Your task to perform on an android device: Is it going to rain this weekend? Image 0: 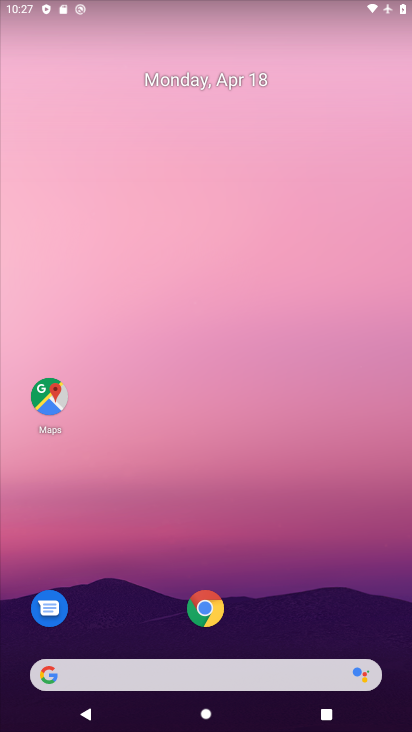
Step 0: click (194, 611)
Your task to perform on an android device: Is it going to rain this weekend? Image 1: 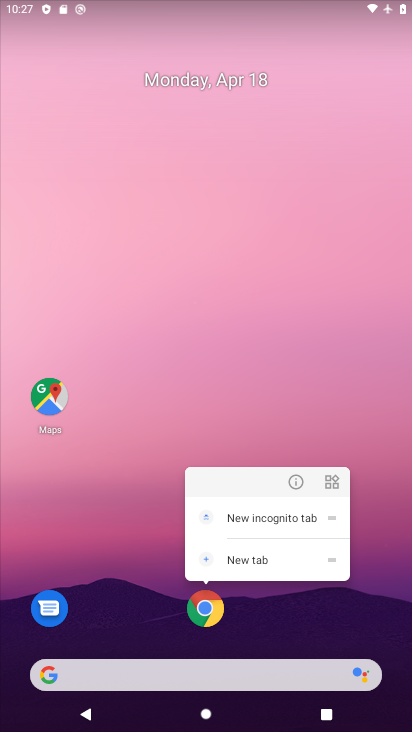
Step 1: click (215, 610)
Your task to perform on an android device: Is it going to rain this weekend? Image 2: 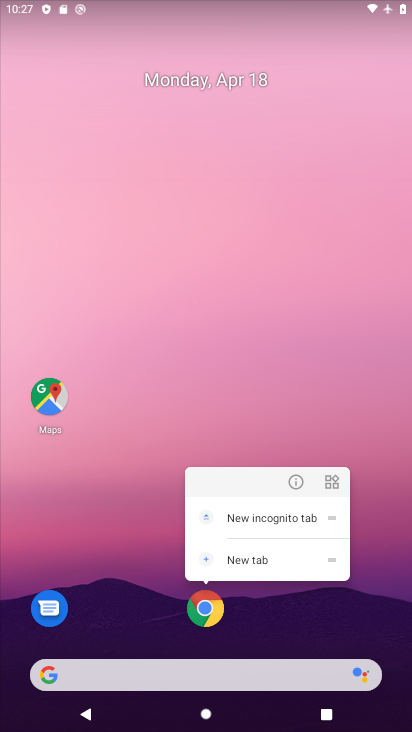
Step 2: click (209, 613)
Your task to perform on an android device: Is it going to rain this weekend? Image 3: 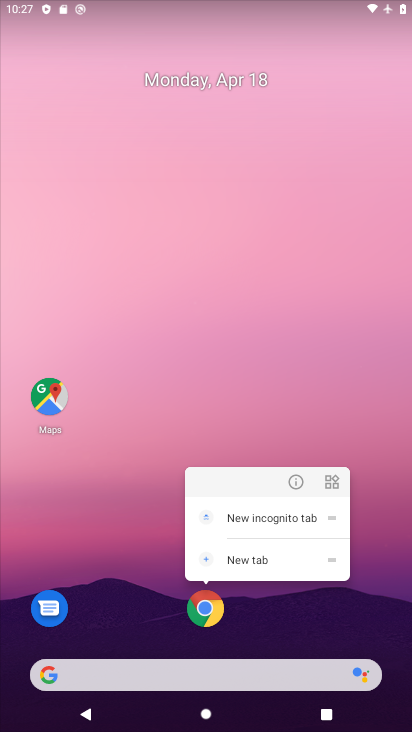
Step 3: click (201, 614)
Your task to perform on an android device: Is it going to rain this weekend? Image 4: 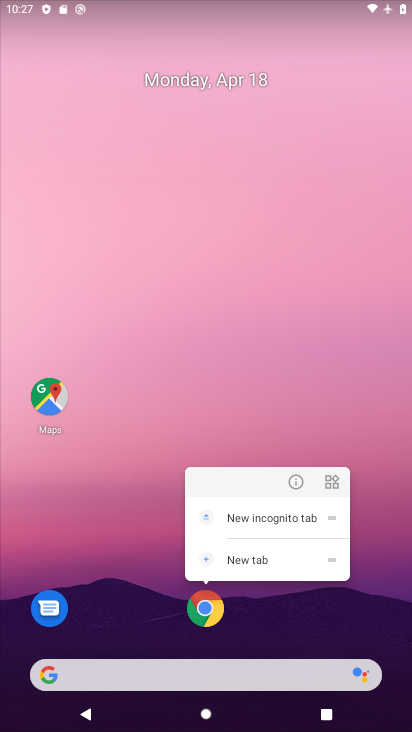
Step 4: click (210, 620)
Your task to perform on an android device: Is it going to rain this weekend? Image 5: 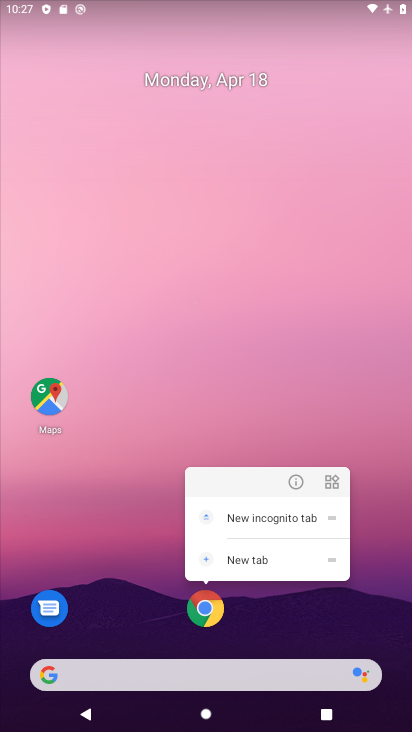
Step 5: click (205, 619)
Your task to perform on an android device: Is it going to rain this weekend? Image 6: 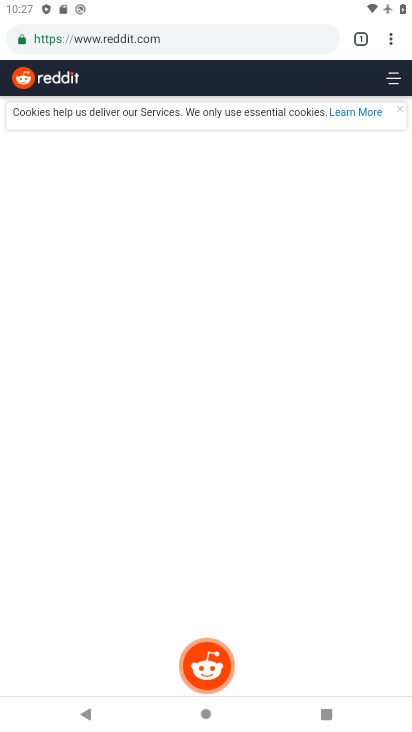
Step 6: click (187, 43)
Your task to perform on an android device: Is it going to rain this weekend? Image 7: 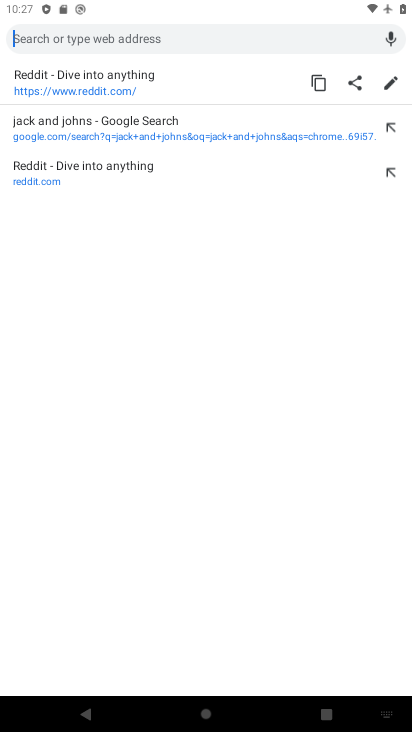
Step 7: type "is it going to rain this weekend"
Your task to perform on an android device: Is it going to rain this weekend? Image 8: 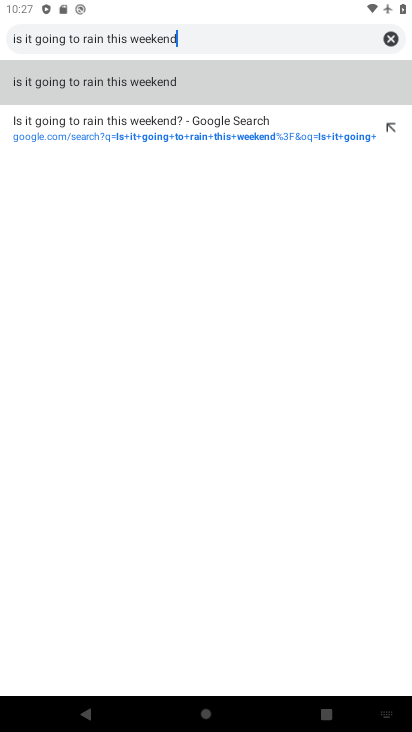
Step 8: click (158, 87)
Your task to perform on an android device: Is it going to rain this weekend? Image 9: 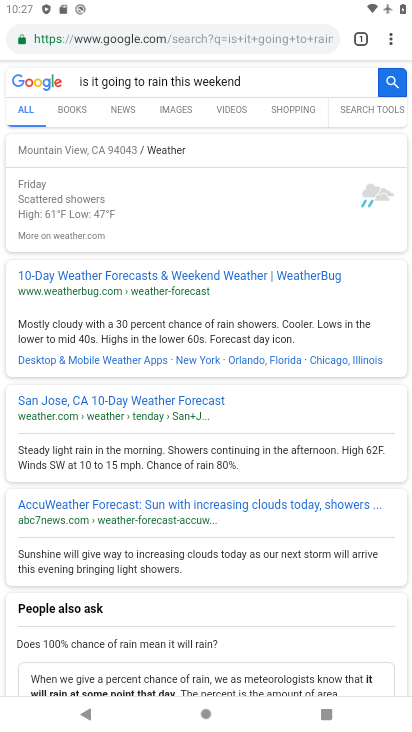
Step 9: click (115, 194)
Your task to perform on an android device: Is it going to rain this weekend? Image 10: 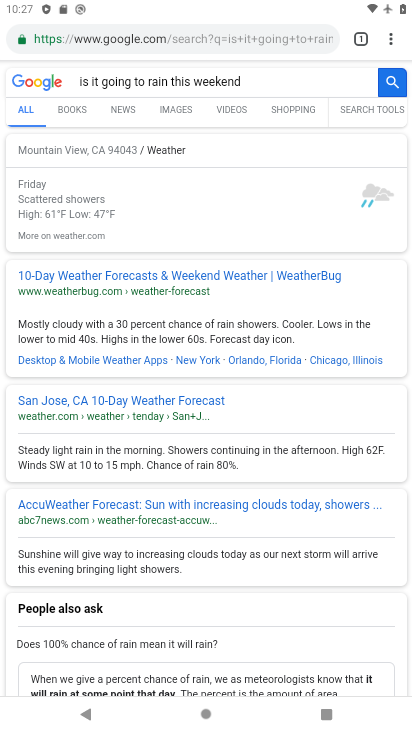
Step 10: click (84, 232)
Your task to perform on an android device: Is it going to rain this weekend? Image 11: 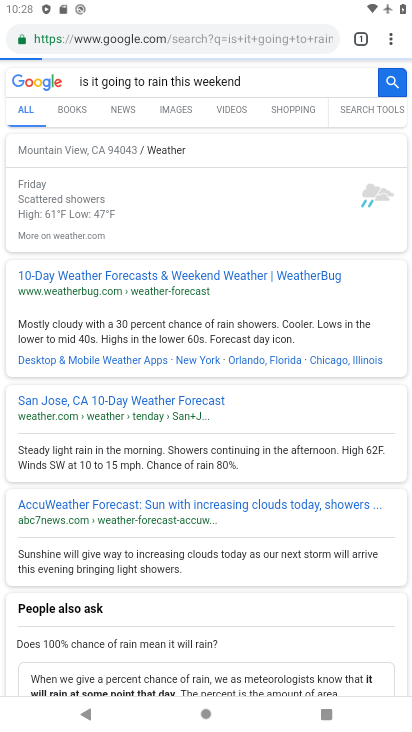
Step 11: click (87, 216)
Your task to perform on an android device: Is it going to rain this weekend? Image 12: 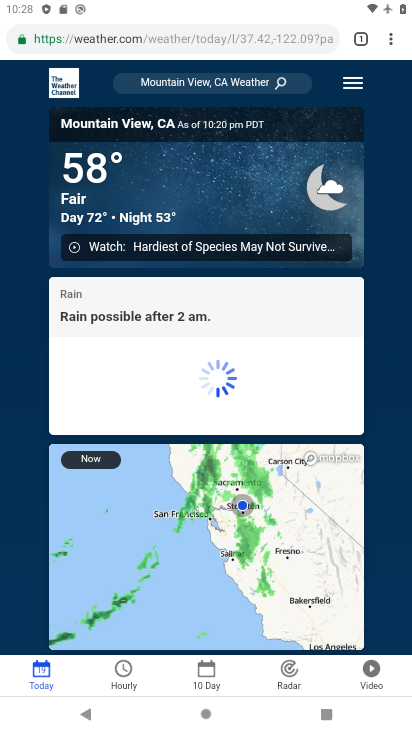
Step 12: task complete